Your task to perform on an android device: Turn on the flashlight Image 0: 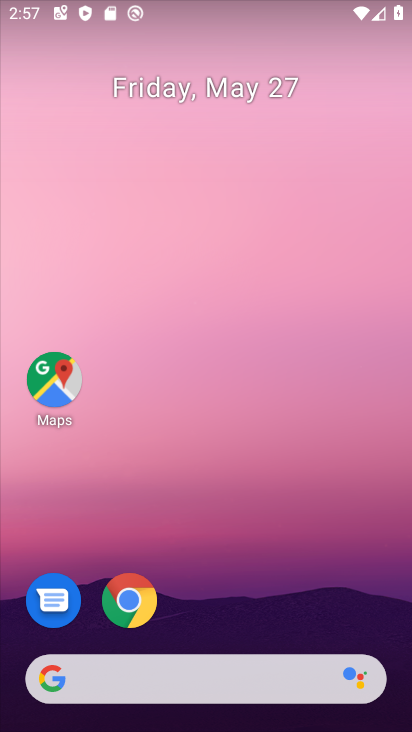
Step 0: drag from (352, 15) to (342, 457)
Your task to perform on an android device: Turn on the flashlight Image 1: 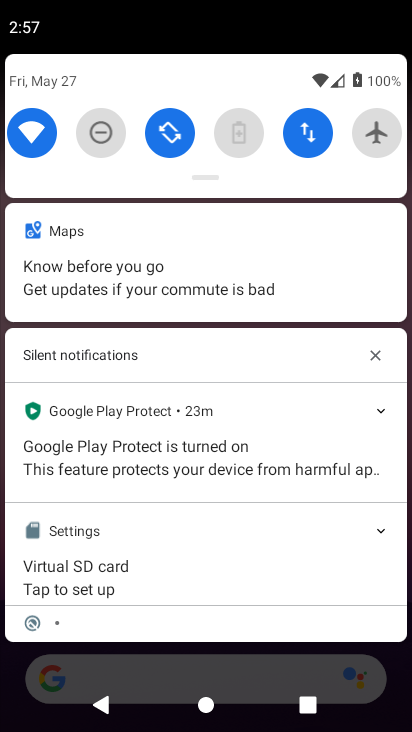
Step 1: drag from (283, 155) to (256, 652)
Your task to perform on an android device: Turn on the flashlight Image 2: 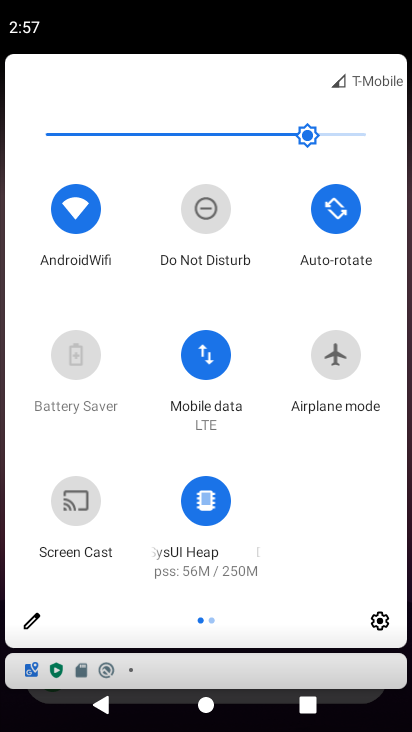
Step 2: click (31, 620)
Your task to perform on an android device: Turn on the flashlight Image 3: 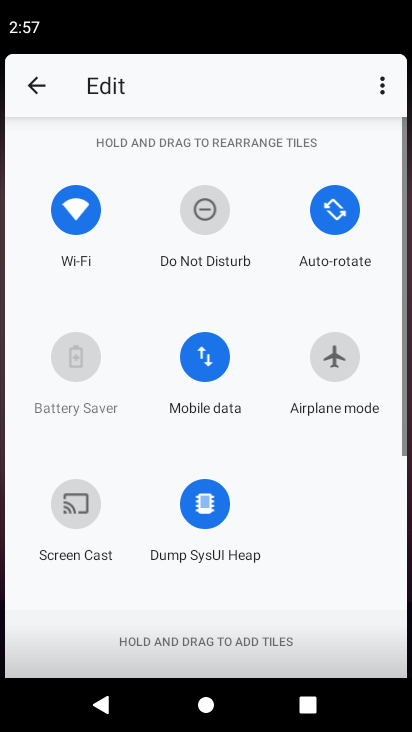
Step 3: task complete